Your task to perform on an android device: check the backup settings in the google photos Image 0: 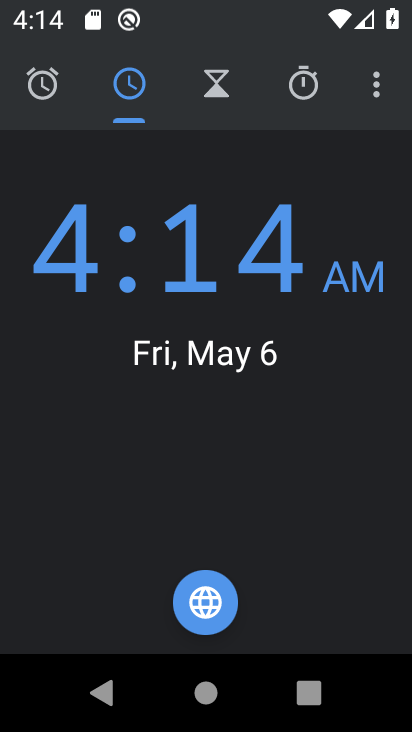
Step 0: press home button
Your task to perform on an android device: check the backup settings in the google photos Image 1: 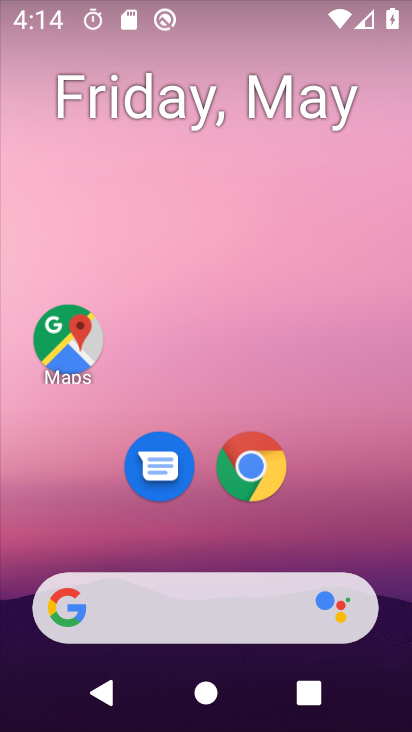
Step 1: drag from (398, 658) to (355, 256)
Your task to perform on an android device: check the backup settings in the google photos Image 2: 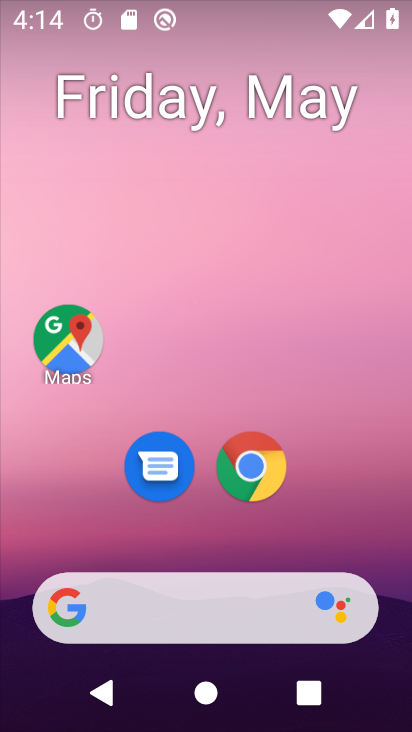
Step 2: drag from (387, 699) to (350, 206)
Your task to perform on an android device: check the backup settings in the google photos Image 3: 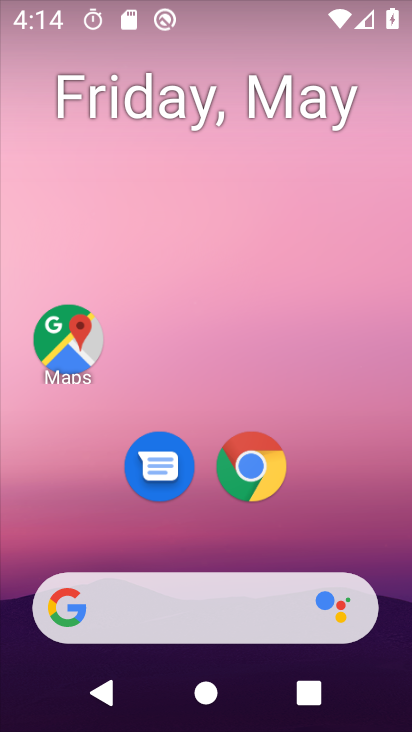
Step 3: drag from (389, 706) to (345, 368)
Your task to perform on an android device: check the backup settings in the google photos Image 4: 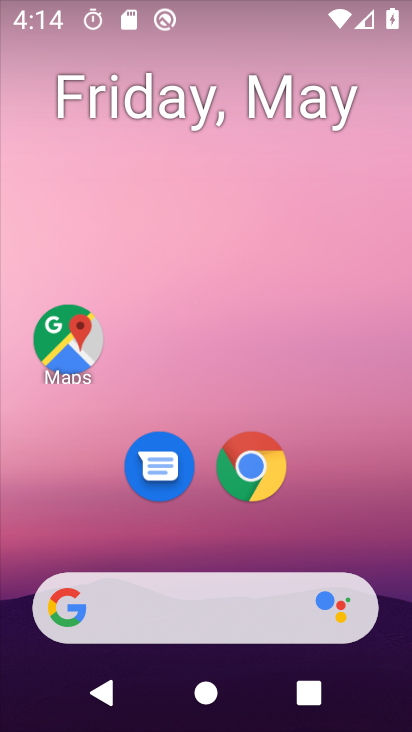
Step 4: drag from (388, 714) to (362, 298)
Your task to perform on an android device: check the backup settings in the google photos Image 5: 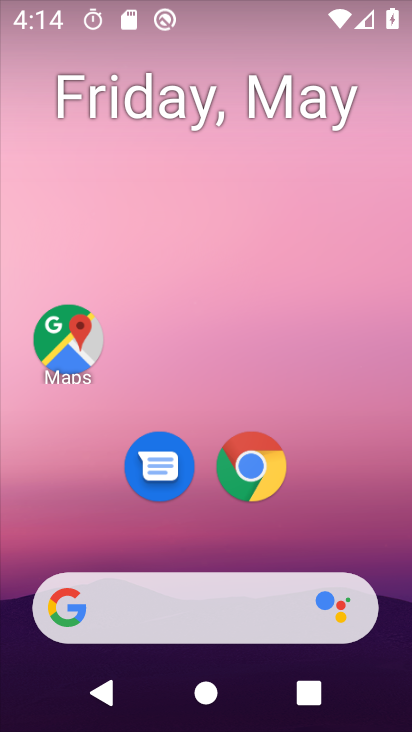
Step 5: drag from (397, 712) to (372, 220)
Your task to perform on an android device: check the backup settings in the google photos Image 6: 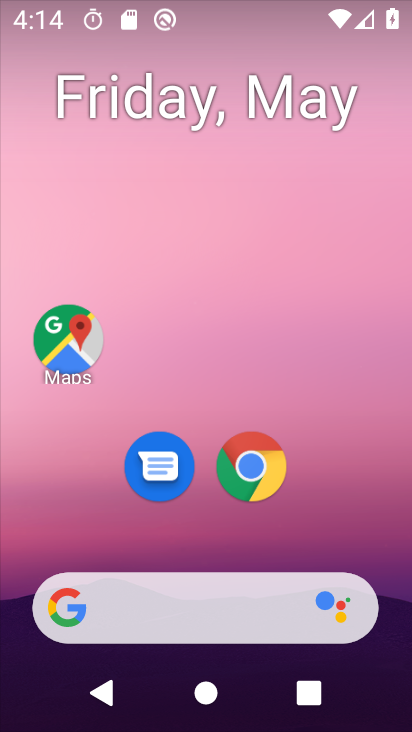
Step 6: drag from (388, 673) to (360, 166)
Your task to perform on an android device: check the backup settings in the google photos Image 7: 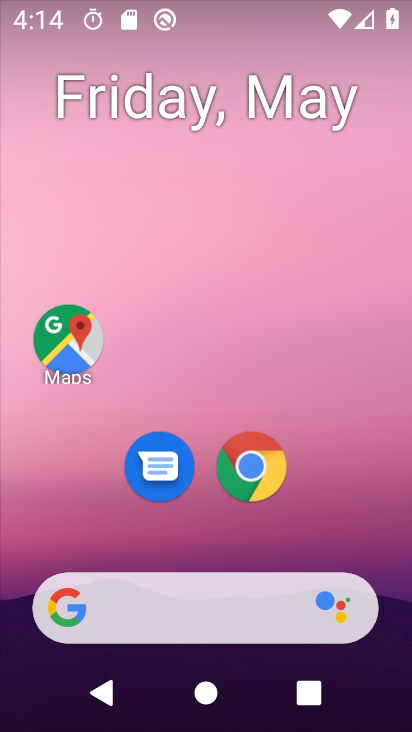
Step 7: drag from (403, 711) to (361, 120)
Your task to perform on an android device: check the backup settings in the google photos Image 8: 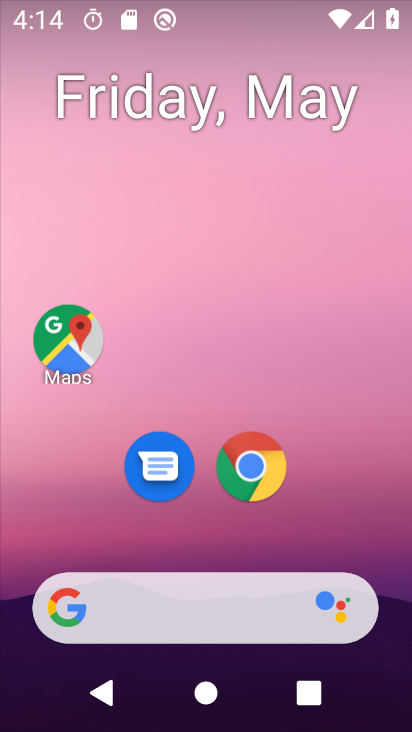
Step 8: drag from (396, 707) to (361, 176)
Your task to perform on an android device: check the backup settings in the google photos Image 9: 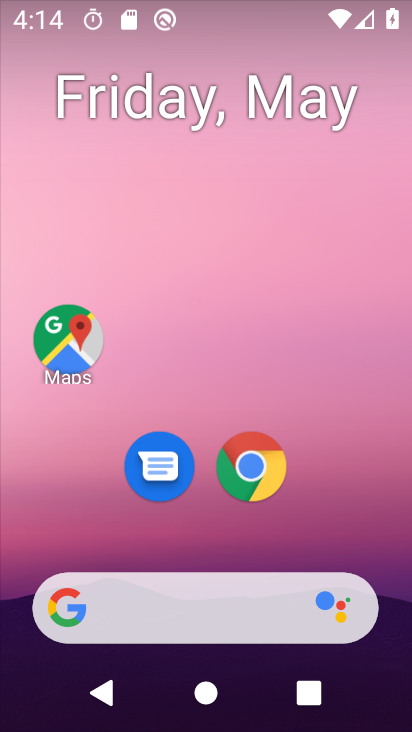
Step 9: drag from (393, 708) to (326, 117)
Your task to perform on an android device: check the backup settings in the google photos Image 10: 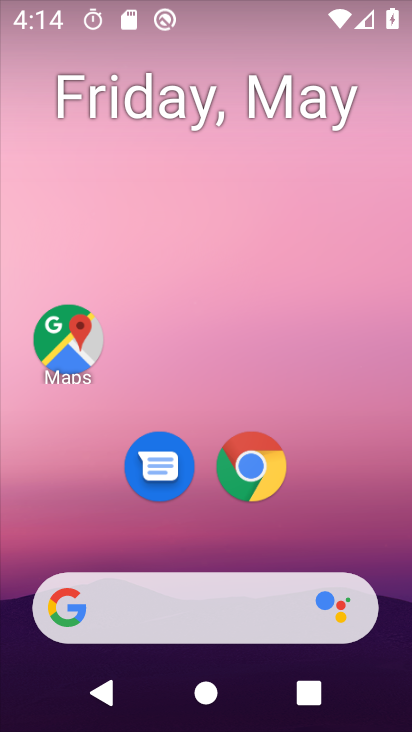
Step 10: drag from (388, 712) to (379, 180)
Your task to perform on an android device: check the backup settings in the google photos Image 11: 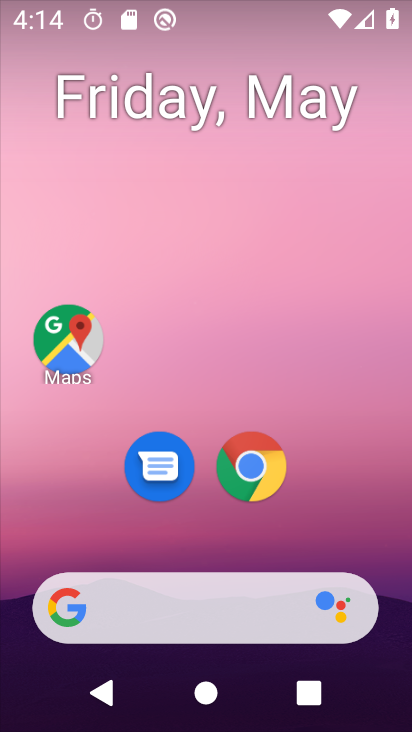
Step 11: drag from (393, 708) to (366, 187)
Your task to perform on an android device: check the backup settings in the google photos Image 12: 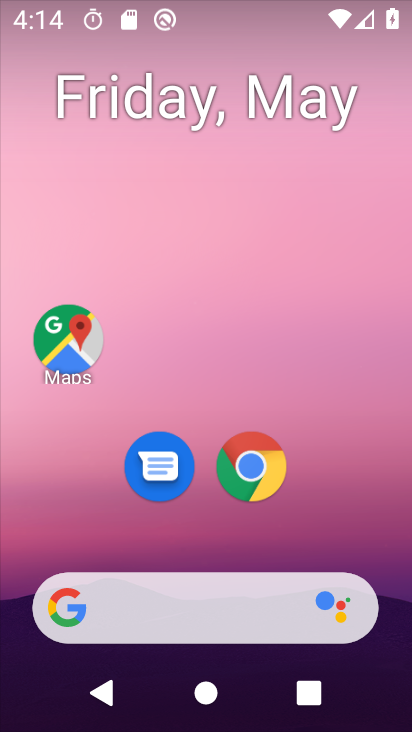
Step 12: drag from (380, 704) to (314, 103)
Your task to perform on an android device: check the backup settings in the google photos Image 13: 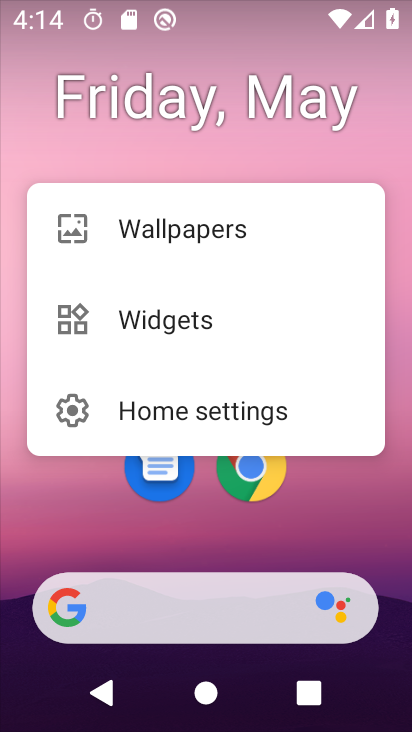
Step 13: click (390, 516)
Your task to perform on an android device: check the backup settings in the google photos Image 14: 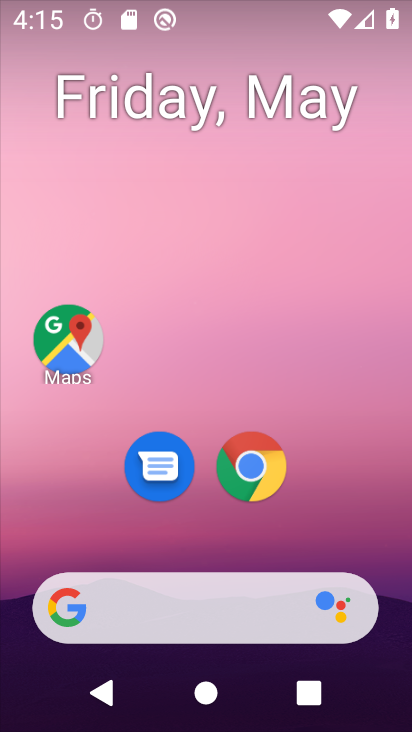
Step 14: drag from (391, 698) to (366, 192)
Your task to perform on an android device: check the backup settings in the google photos Image 15: 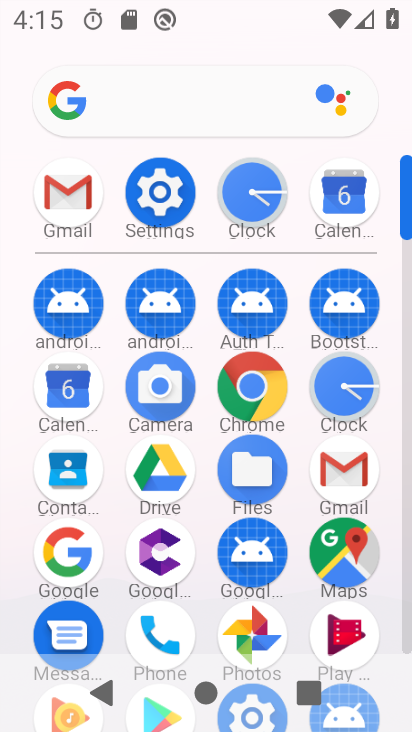
Step 15: click (242, 622)
Your task to perform on an android device: check the backup settings in the google photos Image 16: 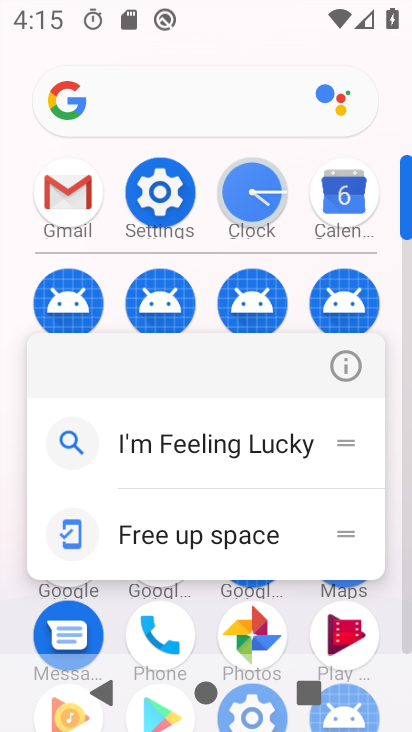
Step 16: click (242, 622)
Your task to perform on an android device: check the backup settings in the google photos Image 17: 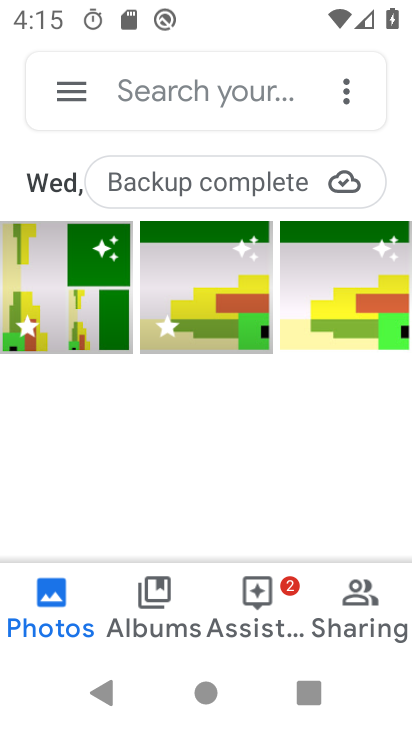
Step 17: click (81, 87)
Your task to perform on an android device: check the backup settings in the google photos Image 18: 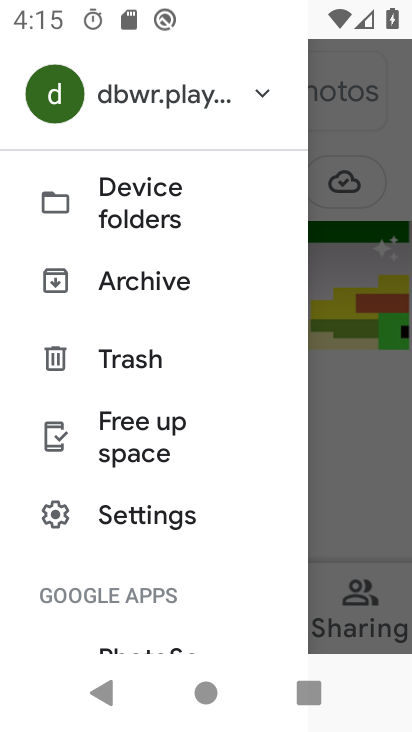
Step 18: drag from (217, 468) to (205, 196)
Your task to perform on an android device: check the backup settings in the google photos Image 19: 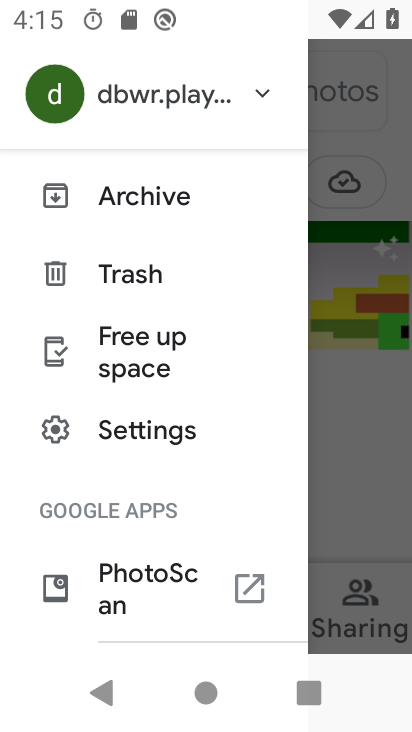
Step 19: drag from (231, 540) to (226, 257)
Your task to perform on an android device: check the backup settings in the google photos Image 20: 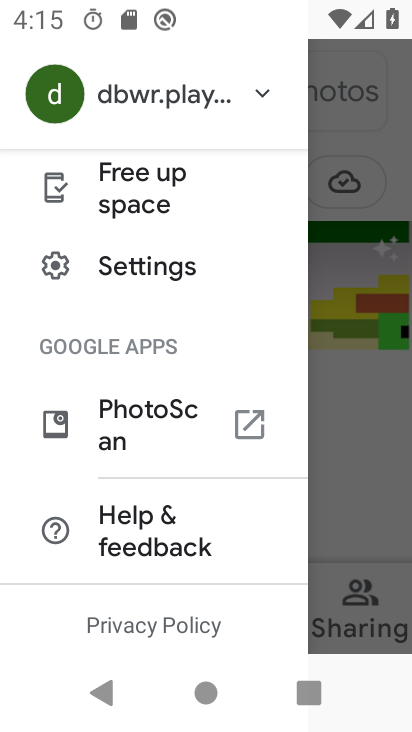
Step 20: click (119, 264)
Your task to perform on an android device: check the backup settings in the google photos Image 21: 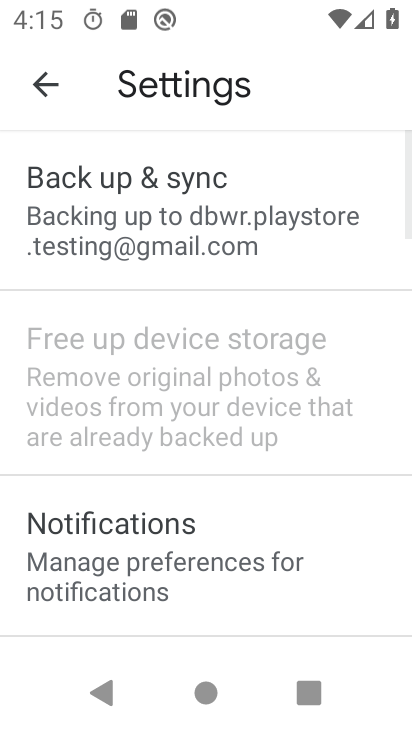
Step 21: click (133, 212)
Your task to perform on an android device: check the backup settings in the google photos Image 22: 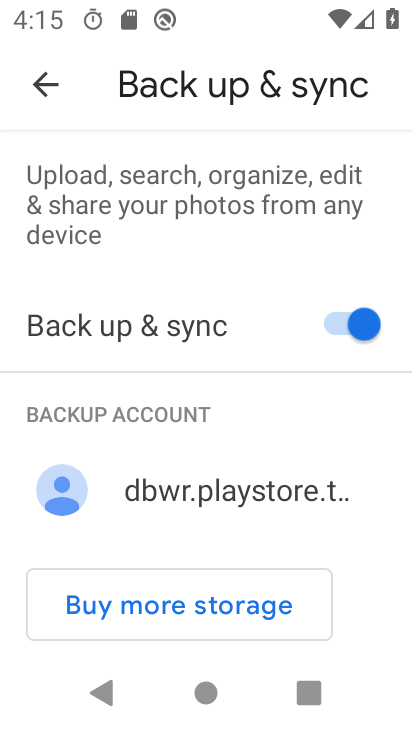
Step 22: task complete